Your task to perform on an android device: open app "PlayWell" (install if not already installed) and enter user name: "metric@gmail.com" and password: "bumblebee" Image 0: 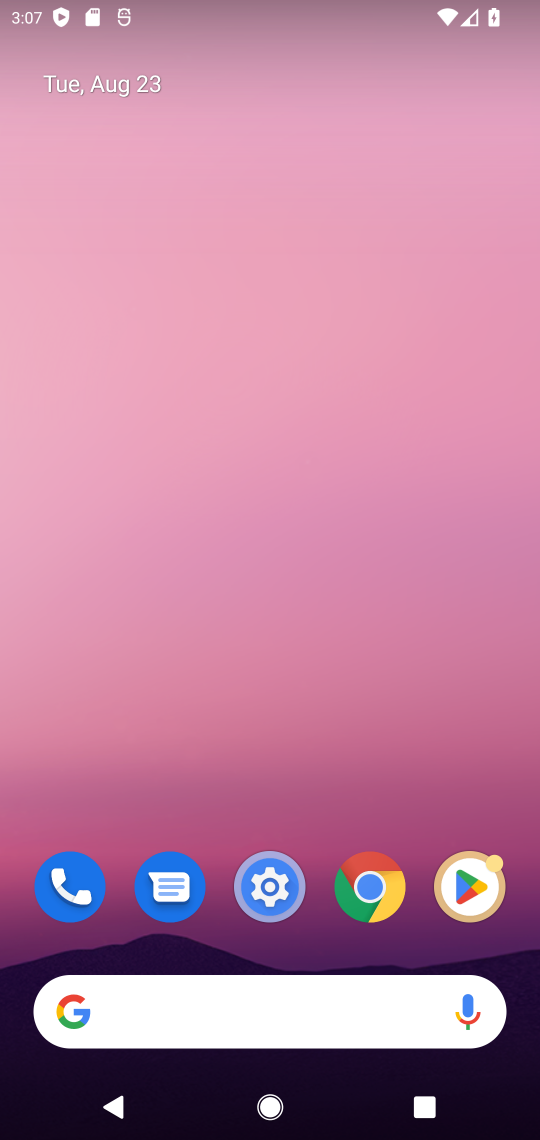
Step 0: click (270, 887)
Your task to perform on an android device: open app "PlayWell" (install if not already installed) and enter user name: "metric@gmail.com" and password: "bumblebee" Image 1: 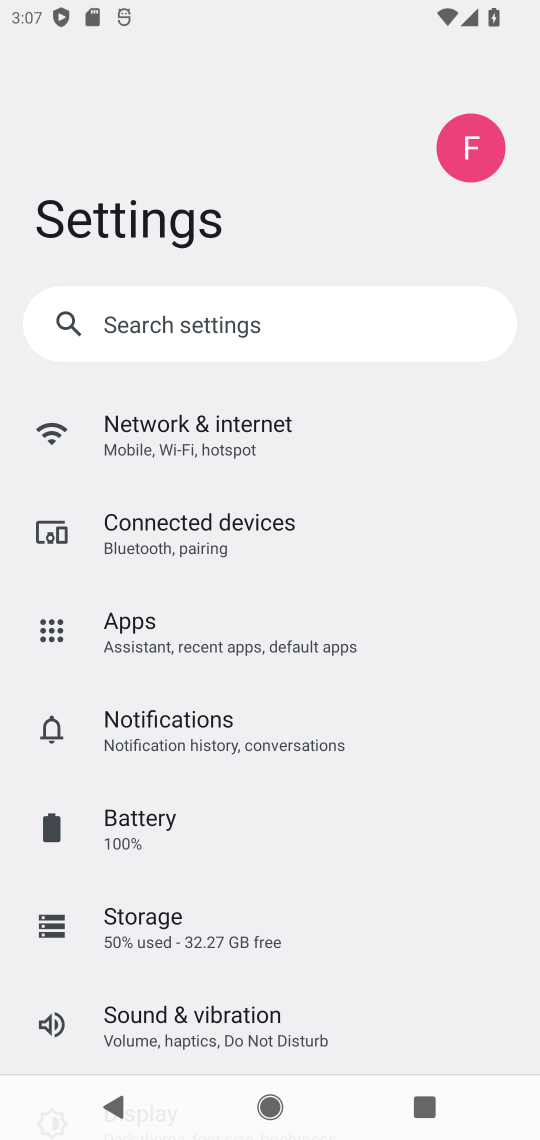
Step 1: press home button
Your task to perform on an android device: open app "PlayWell" (install if not already installed) and enter user name: "metric@gmail.com" and password: "bumblebee" Image 2: 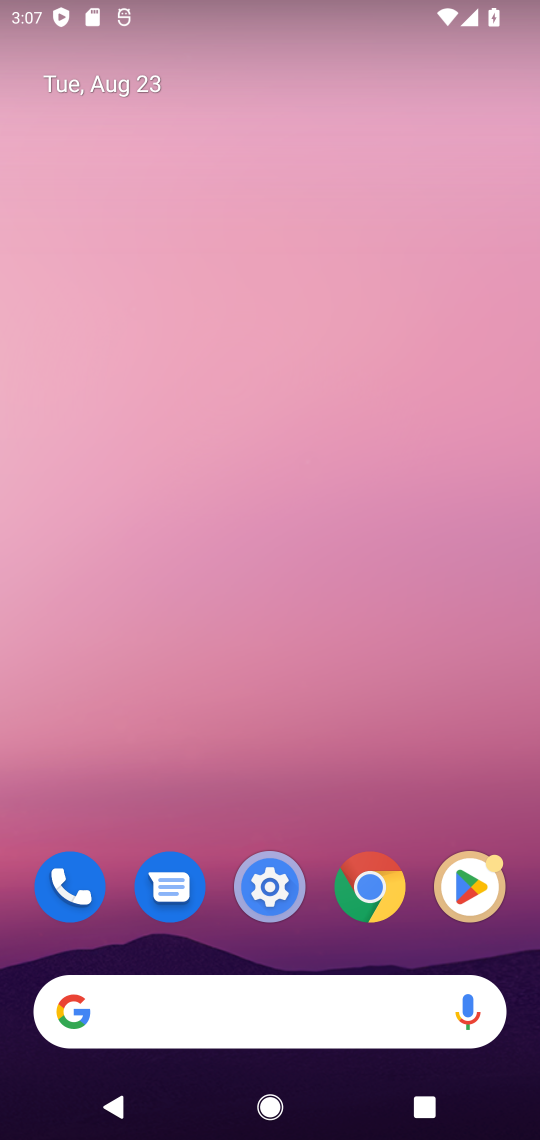
Step 2: click (464, 885)
Your task to perform on an android device: open app "PlayWell" (install if not already installed) and enter user name: "metric@gmail.com" and password: "bumblebee" Image 3: 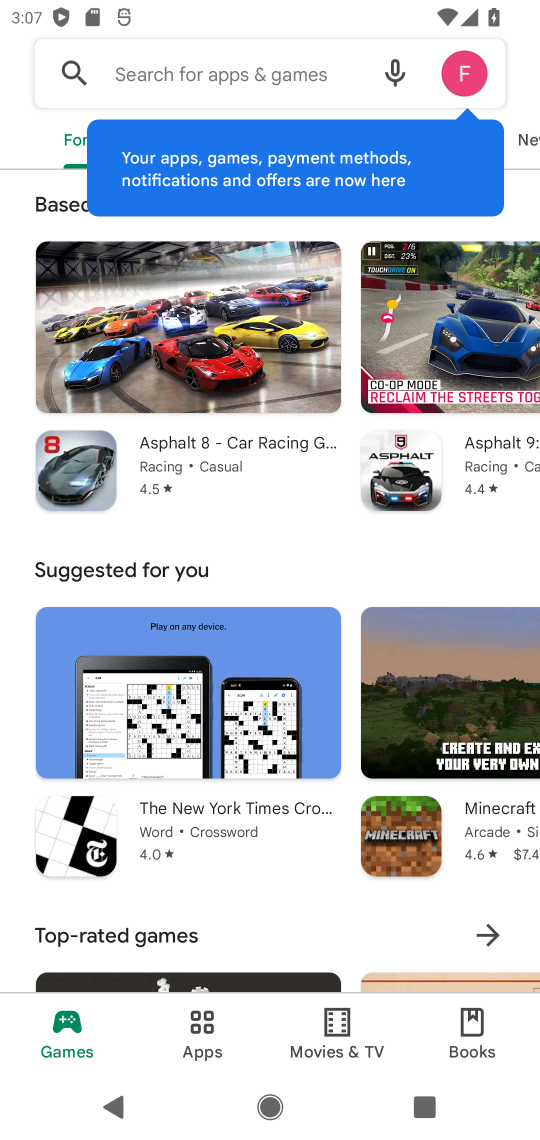
Step 3: click (272, 75)
Your task to perform on an android device: open app "PlayWell" (install if not already installed) and enter user name: "metric@gmail.com" and password: "bumblebee" Image 4: 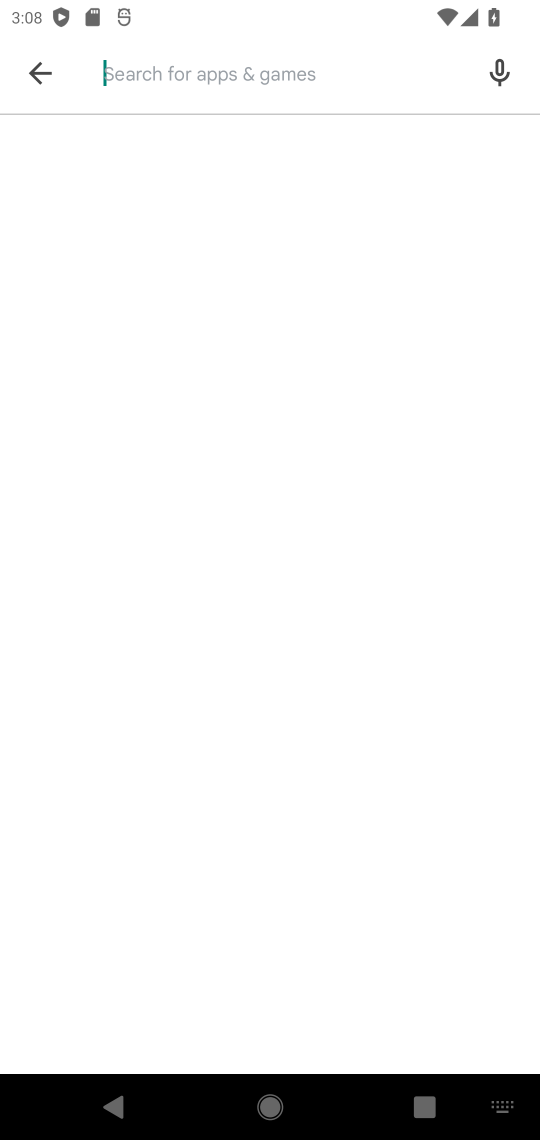
Step 4: type "PlayWell"
Your task to perform on an android device: open app "PlayWell" (install if not already installed) and enter user name: "metric@gmail.com" and password: "bumblebee" Image 5: 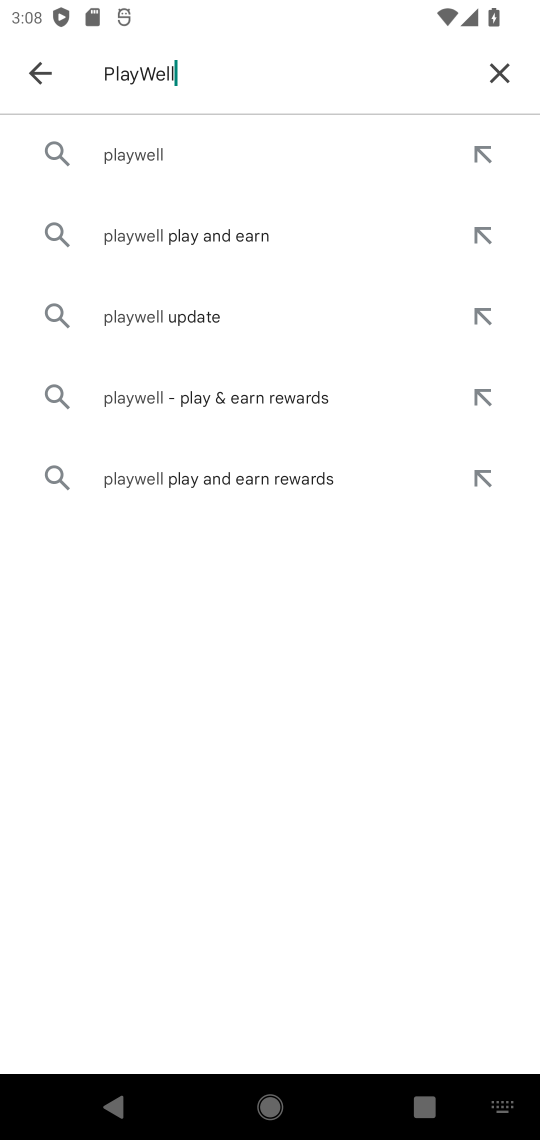
Step 5: click (152, 152)
Your task to perform on an android device: open app "PlayWell" (install if not already installed) and enter user name: "metric@gmail.com" and password: "bumblebee" Image 6: 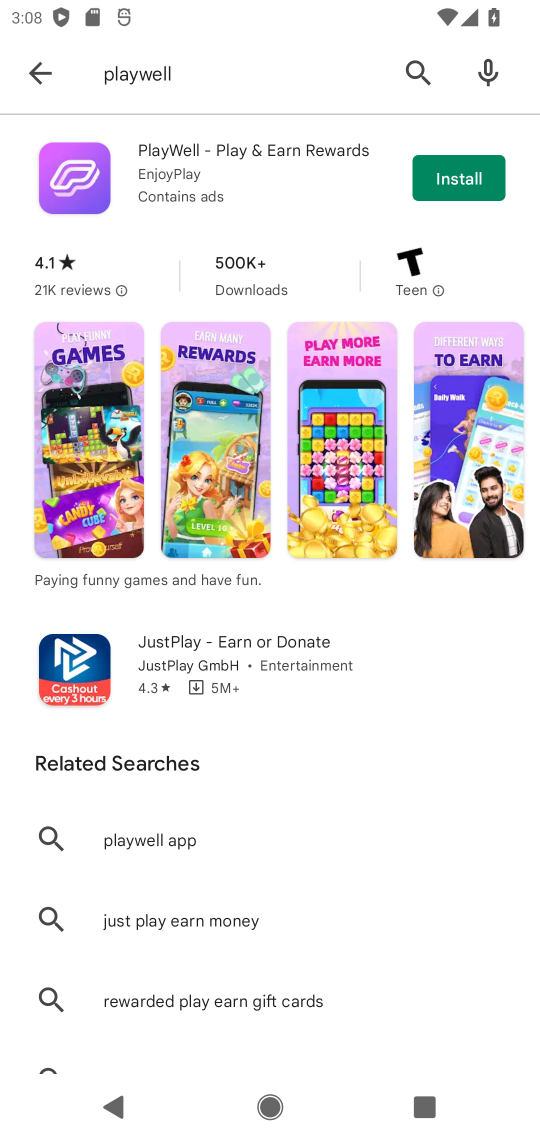
Step 6: click (455, 188)
Your task to perform on an android device: open app "PlayWell" (install if not already installed) and enter user name: "metric@gmail.com" and password: "bumblebee" Image 7: 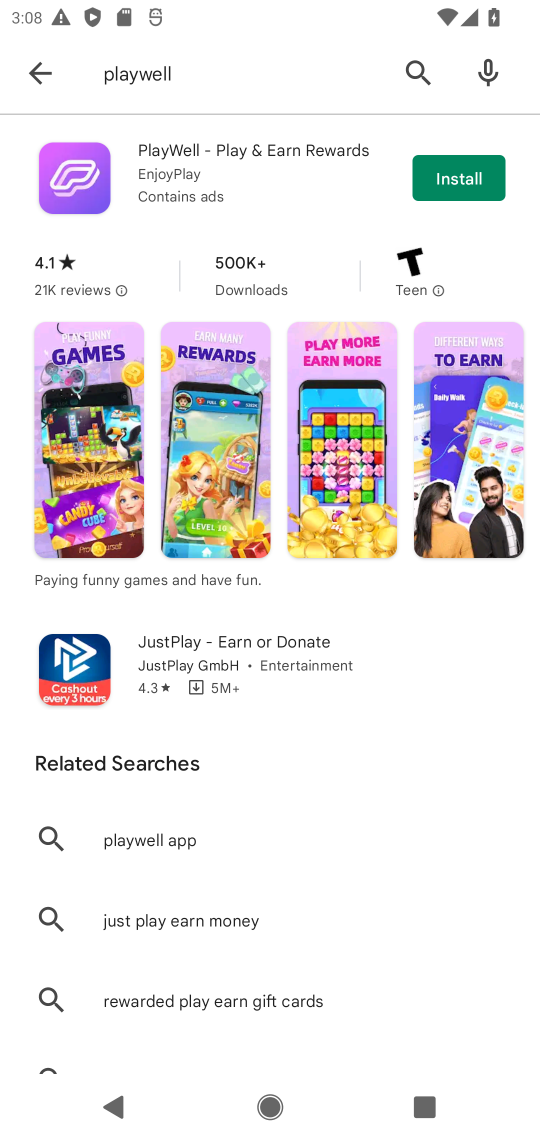
Step 7: task complete